Your task to perform on an android device: Open calendar and show me the second week of next month Image 0: 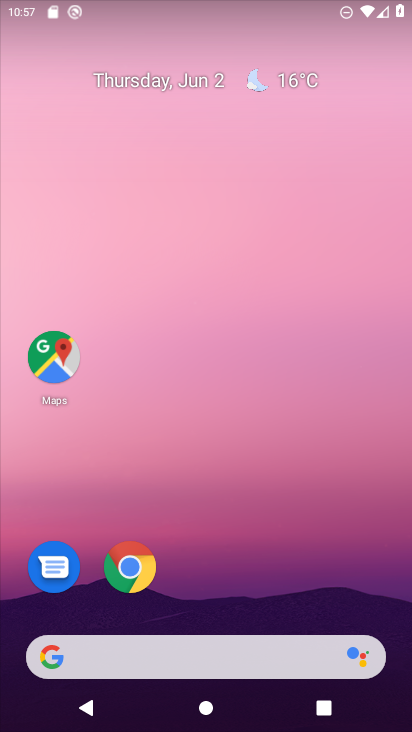
Step 0: drag from (140, 726) to (88, 45)
Your task to perform on an android device: Open calendar and show me the second week of next month Image 1: 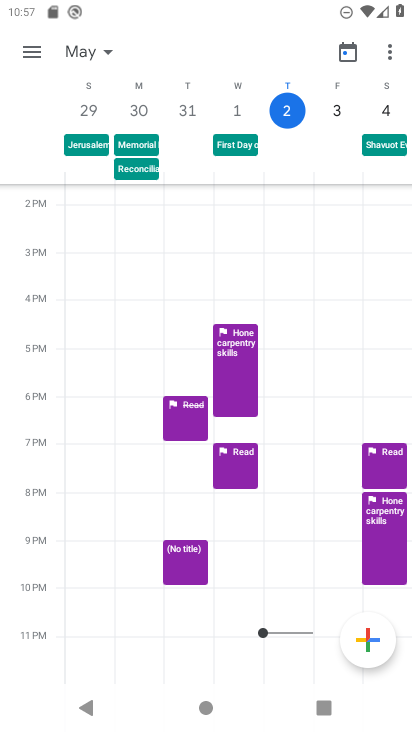
Step 1: click (20, 54)
Your task to perform on an android device: Open calendar and show me the second week of next month Image 2: 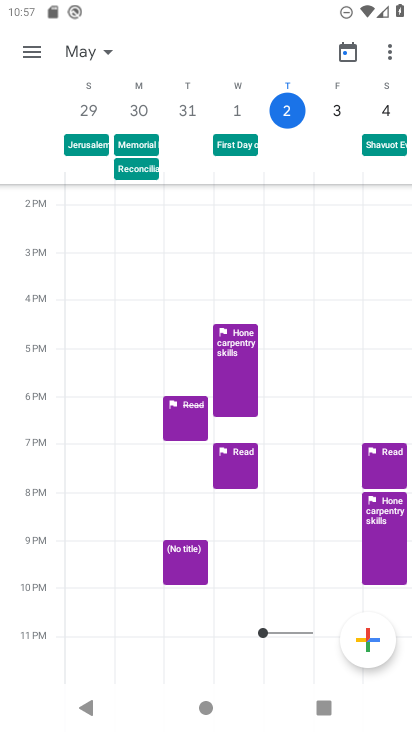
Step 2: click (32, 48)
Your task to perform on an android device: Open calendar and show me the second week of next month Image 3: 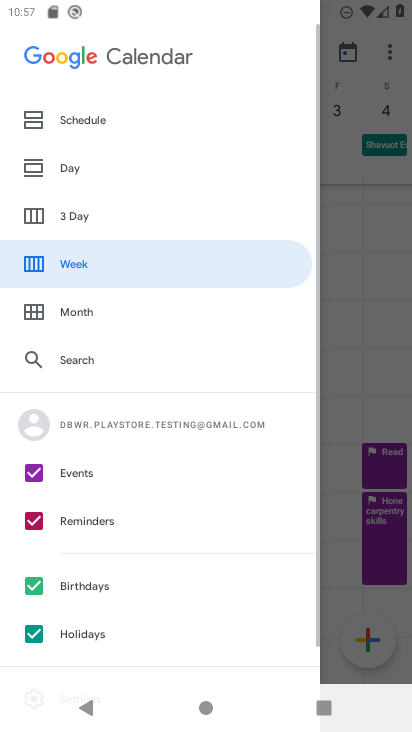
Step 3: click (370, 219)
Your task to perform on an android device: Open calendar and show me the second week of next month Image 4: 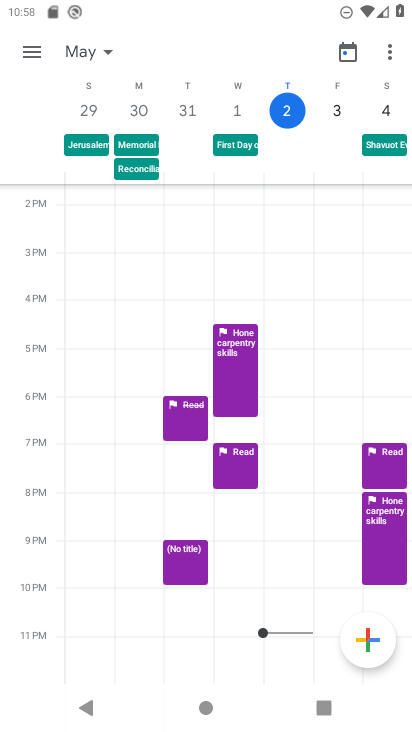
Step 4: click (103, 50)
Your task to perform on an android device: Open calendar and show me the second week of next month Image 5: 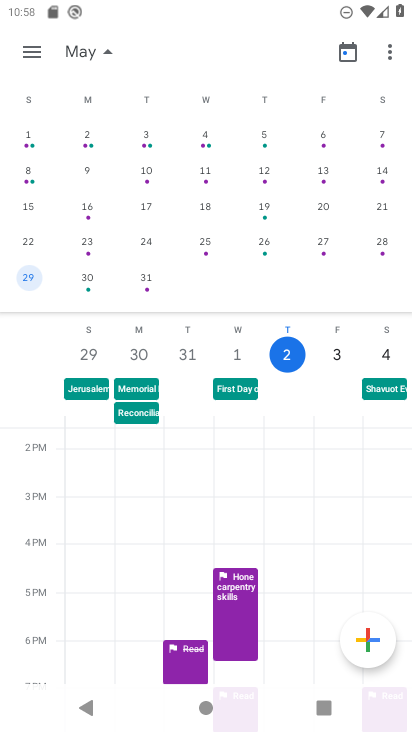
Step 5: drag from (351, 269) to (8, 240)
Your task to perform on an android device: Open calendar and show me the second week of next month Image 6: 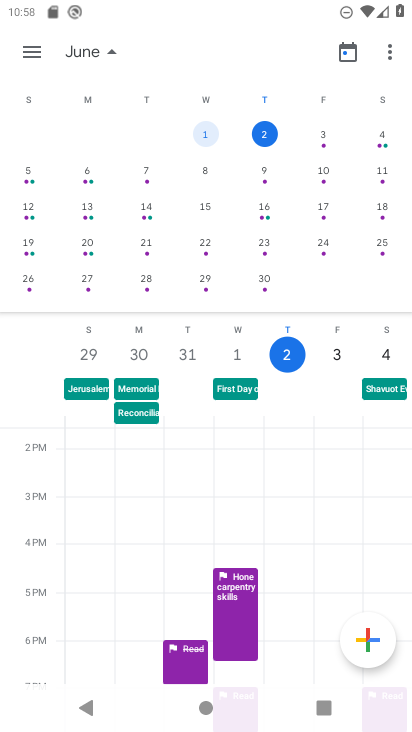
Step 6: drag from (381, 283) to (4, 287)
Your task to perform on an android device: Open calendar and show me the second week of next month Image 7: 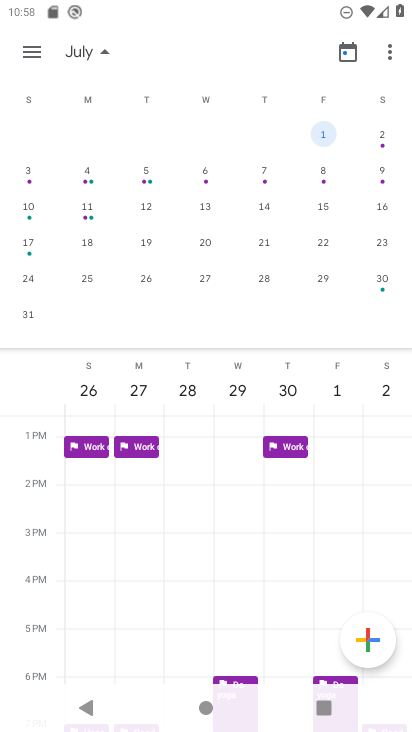
Step 7: click (104, 52)
Your task to perform on an android device: Open calendar and show me the second week of next month Image 8: 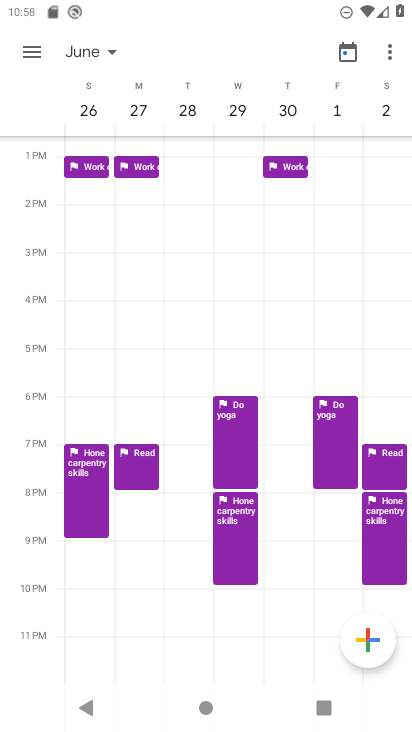
Step 8: task complete